Your task to perform on an android device: Show me recent news Image 0: 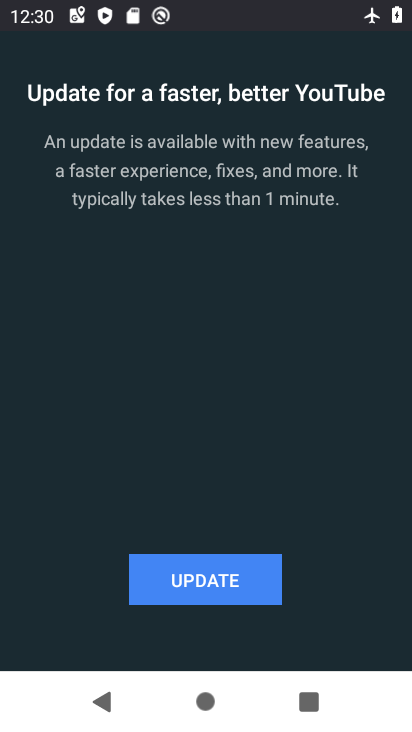
Step 0: press home button
Your task to perform on an android device: Show me recent news Image 1: 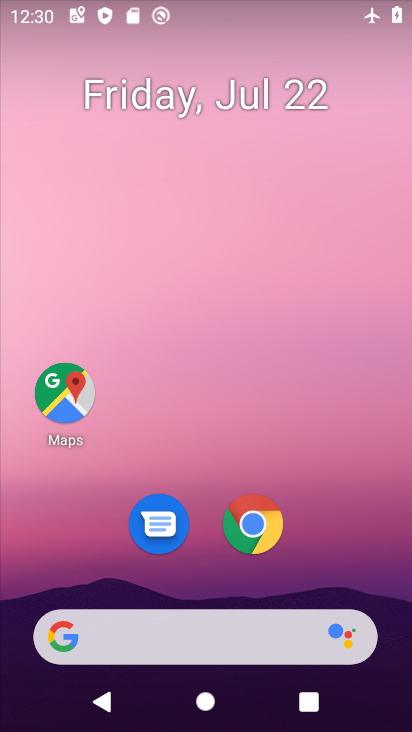
Step 1: click (252, 647)
Your task to perform on an android device: Show me recent news Image 2: 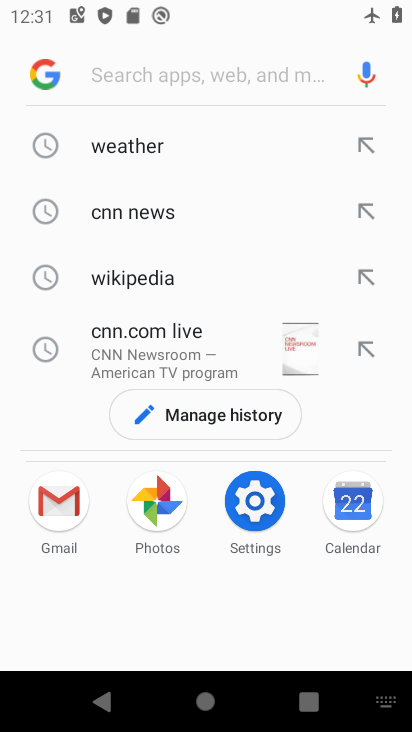
Step 2: type "recent news"
Your task to perform on an android device: Show me recent news Image 3: 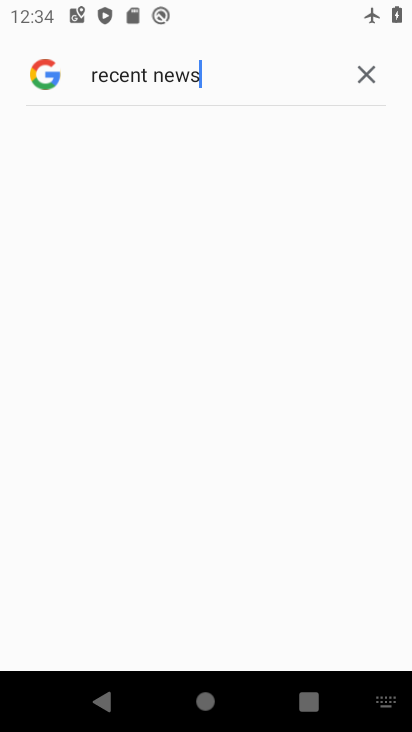
Step 3: task complete